Your task to perform on an android device: Open Wikipedia Image 0: 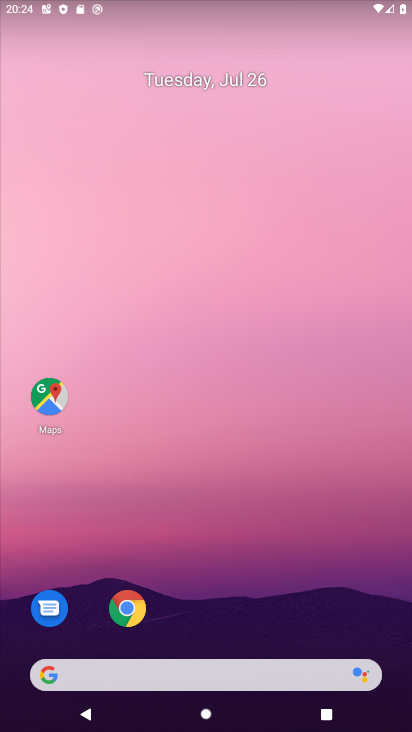
Step 0: click (93, 676)
Your task to perform on an android device: Open Wikipedia Image 1: 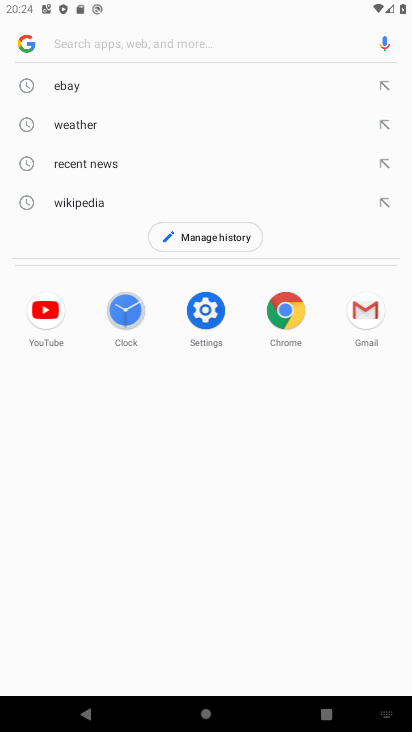
Step 1: click (98, 204)
Your task to perform on an android device: Open Wikipedia Image 2: 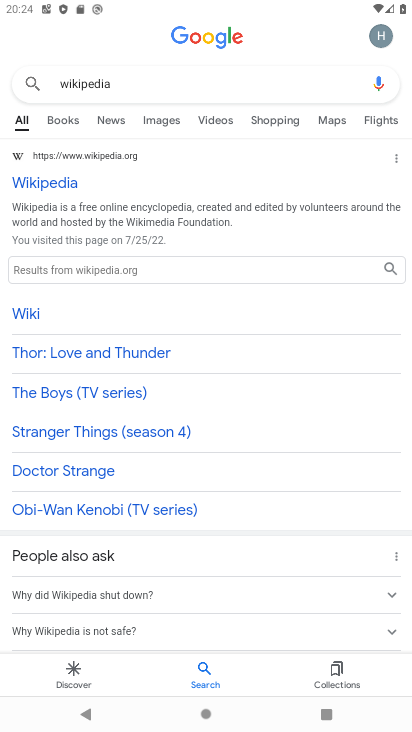
Step 2: task complete